Your task to perform on an android device: allow notifications from all sites in the chrome app Image 0: 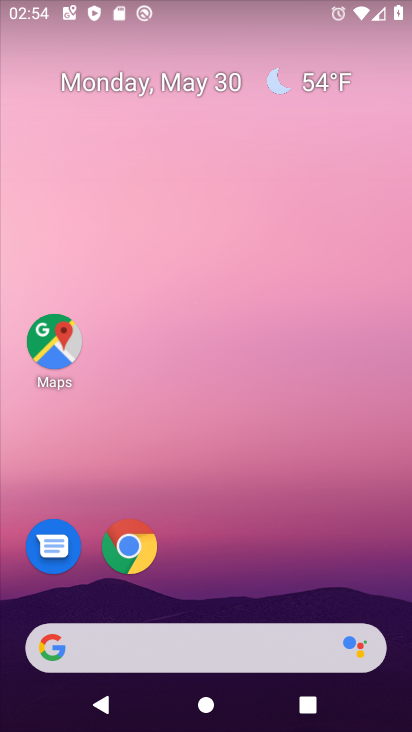
Step 0: press home button
Your task to perform on an android device: allow notifications from all sites in the chrome app Image 1: 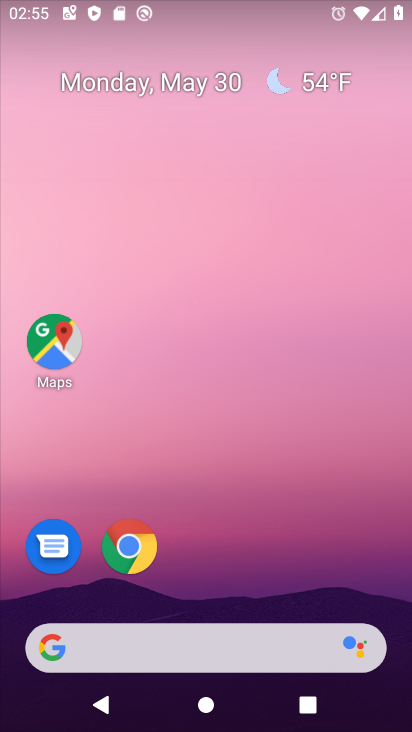
Step 1: click (125, 543)
Your task to perform on an android device: allow notifications from all sites in the chrome app Image 2: 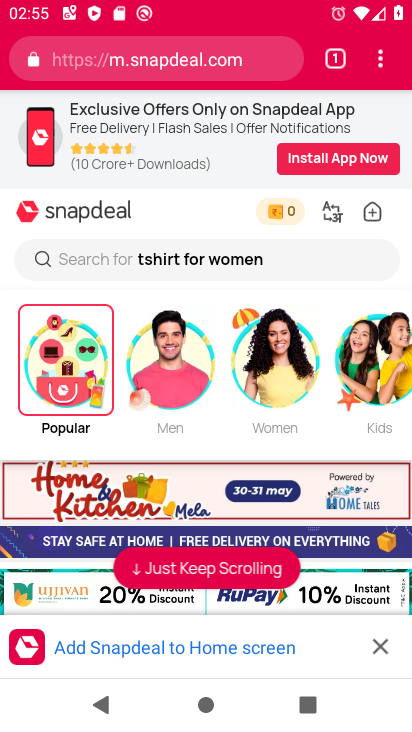
Step 2: click (380, 58)
Your task to perform on an android device: allow notifications from all sites in the chrome app Image 3: 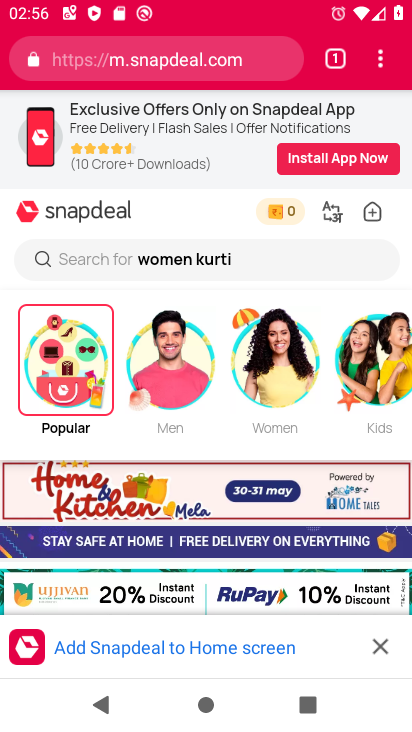
Step 3: click (384, 63)
Your task to perform on an android device: allow notifications from all sites in the chrome app Image 4: 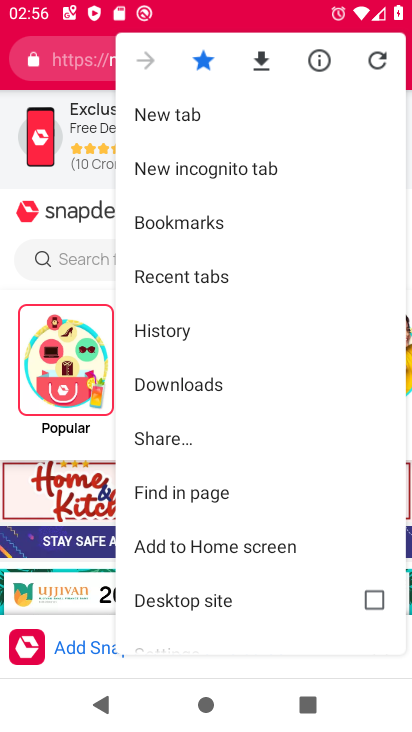
Step 4: drag from (262, 614) to (289, 145)
Your task to perform on an android device: allow notifications from all sites in the chrome app Image 5: 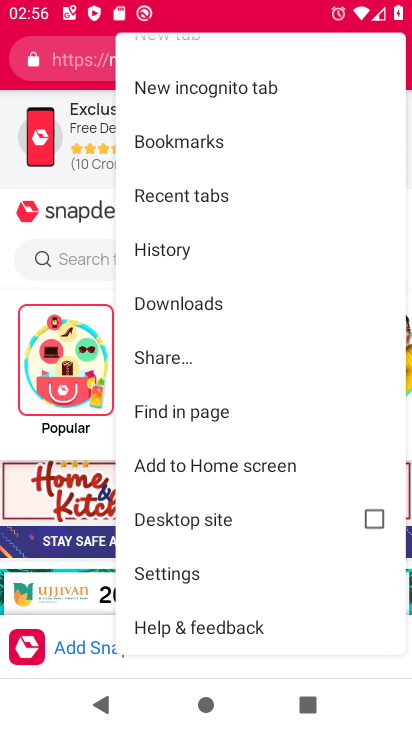
Step 5: click (201, 571)
Your task to perform on an android device: allow notifications from all sites in the chrome app Image 6: 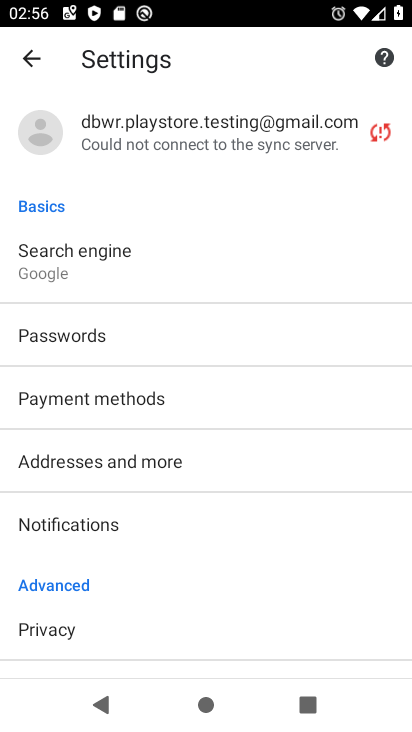
Step 6: drag from (219, 577) to (246, 144)
Your task to perform on an android device: allow notifications from all sites in the chrome app Image 7: 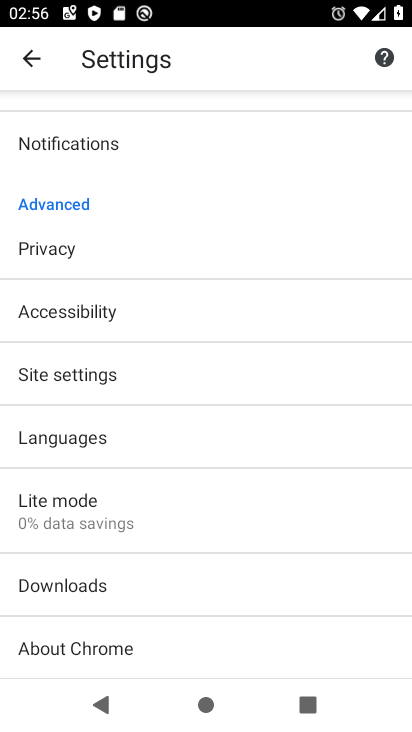
Step 7: click (163, 373)
Your task to perform on an android device: allow notifications from all sites in the chrome app Image 8: 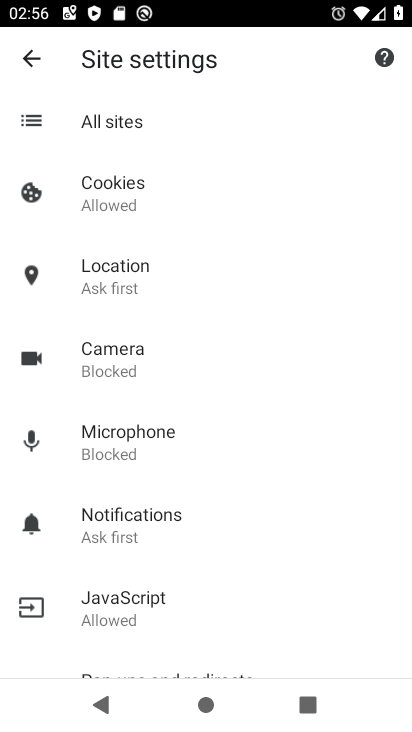
Step 8: click (163, 112)
Your task to perform on an android device: allow notifications from all sites in the chrome app Image 9: 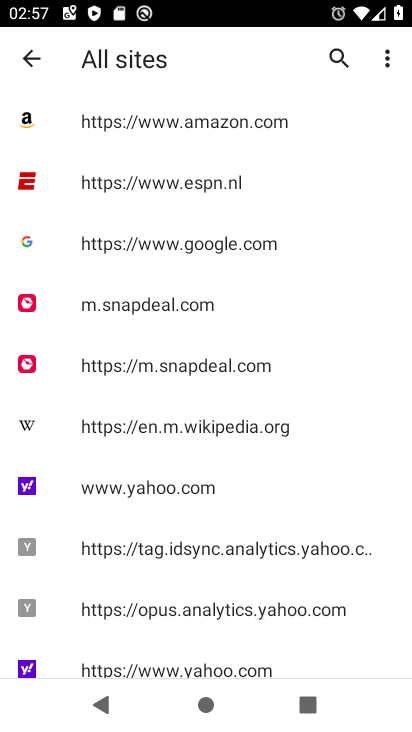
Step 9: click (67, 114)
Your task to perform on an android device: allow notifications from all sites in the chrome app Image 10: 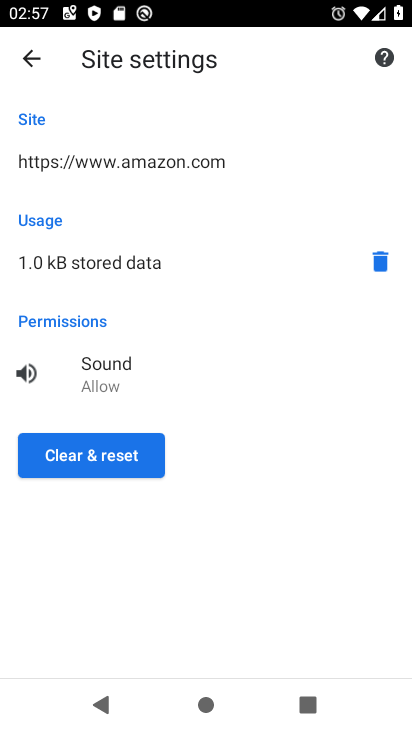
Step 10: click (32, 45)
Your task to perform on an android device: allow notifications from all sites in the chrome app Image 11: 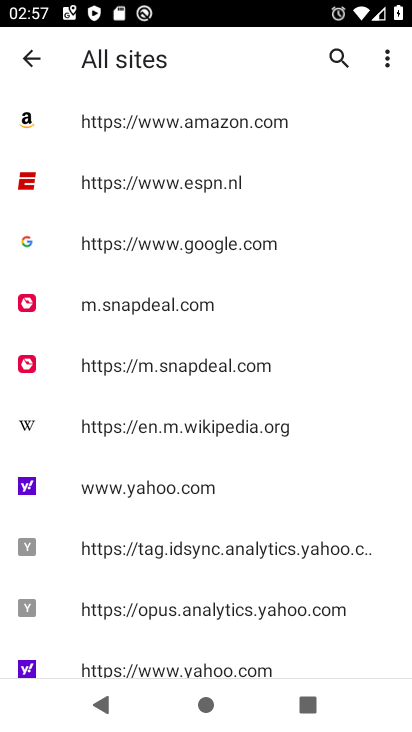
Step 11: click (182, 608)
Your task to perform on an android device: allow notifications from all sites in the chrome app Image 12: 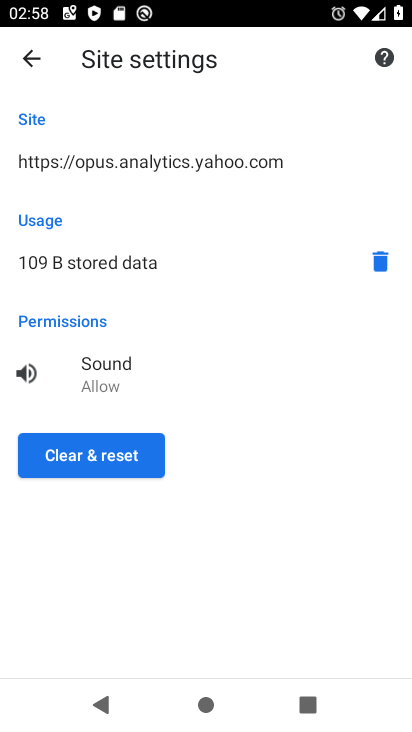
Step 12: task complete